Your task to perform on an android device: Check the weather Image 0: 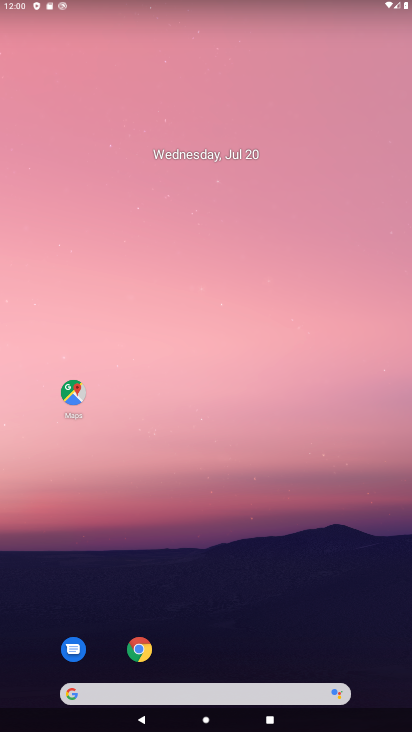
Step 0: click (220, 679)
Your task to perform on an android device: Check the weather Image 1: 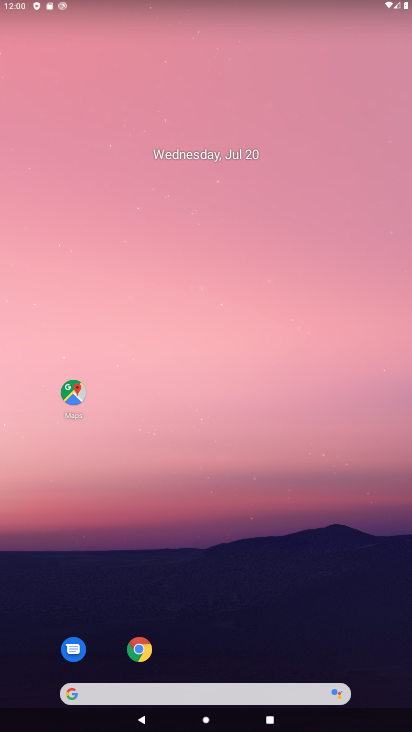
Step 1: click (232, 694)
Your task to perform on an android device: Check the weather Image 2: 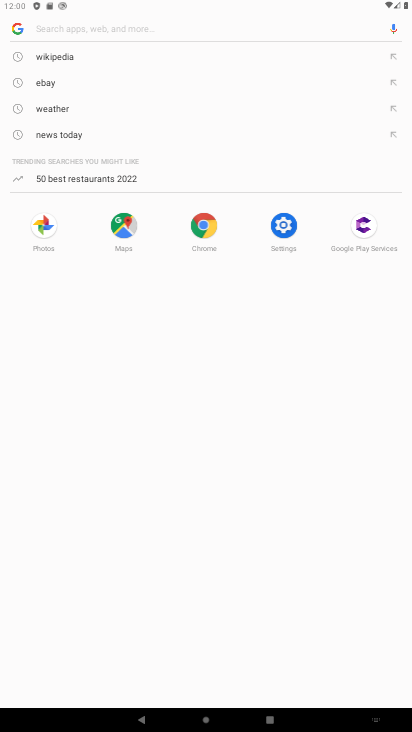
Step 2: click (108, 108)
Your task to perform on an android device: Check the weather Image 3: 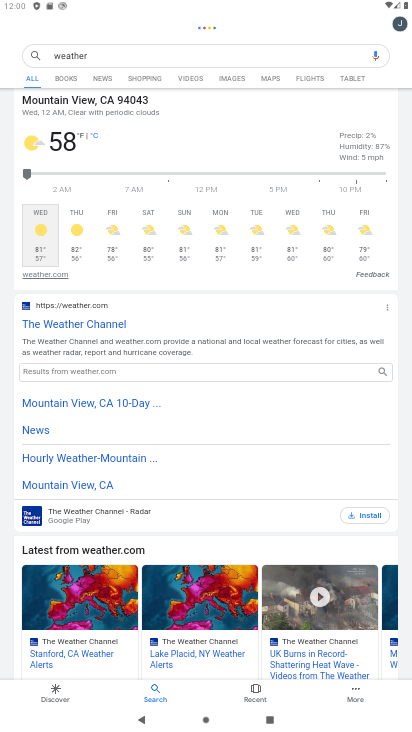
Step 3: task complete